Your task to perform on an android device: When is my next meeting? Image 0: 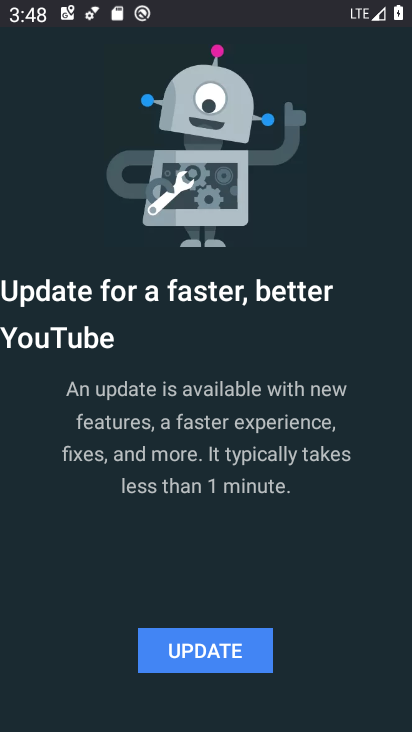
Step 0: press back button
Your task to perform on an android device: When is my next meeting? Image 1: 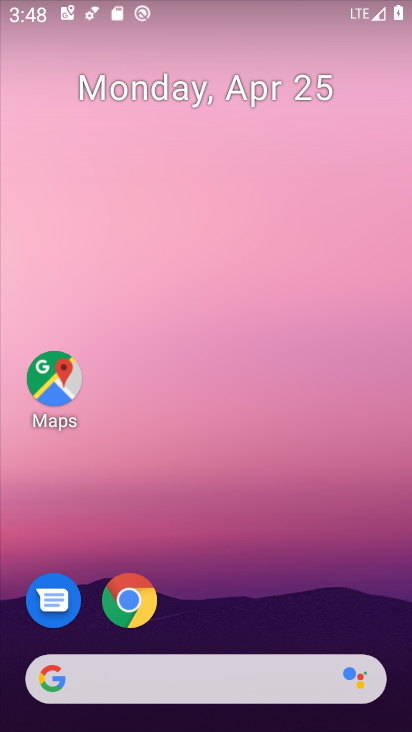
Step 1: drag from (289, 529) to (239, 4)
Your task to perform on an android device: When is my next meeting? Image 2: 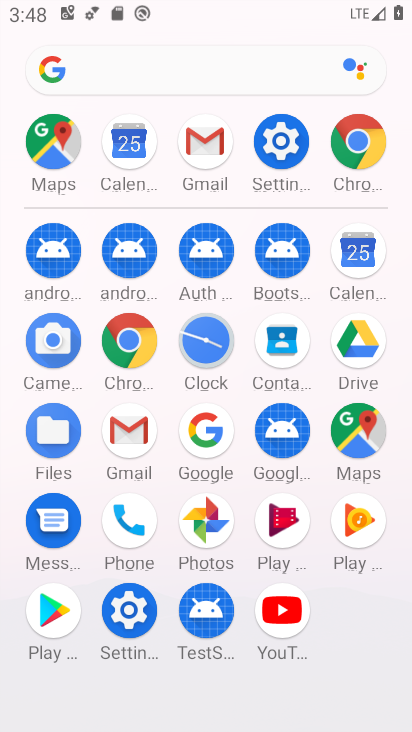
Step 2: drag from (9, 498) to (8, 213)
Your task to perform on an android device: When is my next meeting? Image 3: 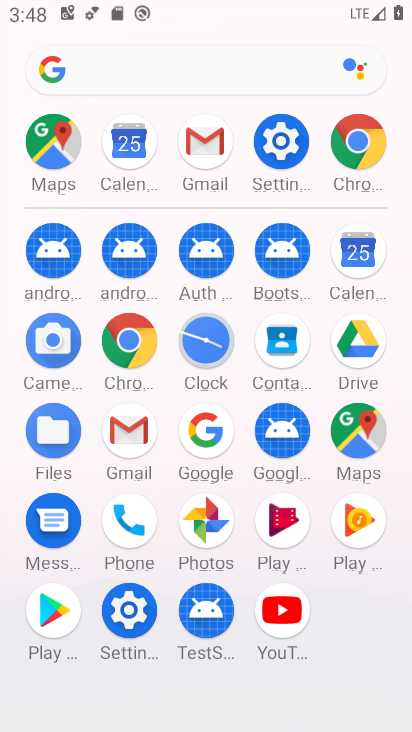
Step 3: click (362, 247)
Your task to perform on an android device: When is my next meeting? Image 4: 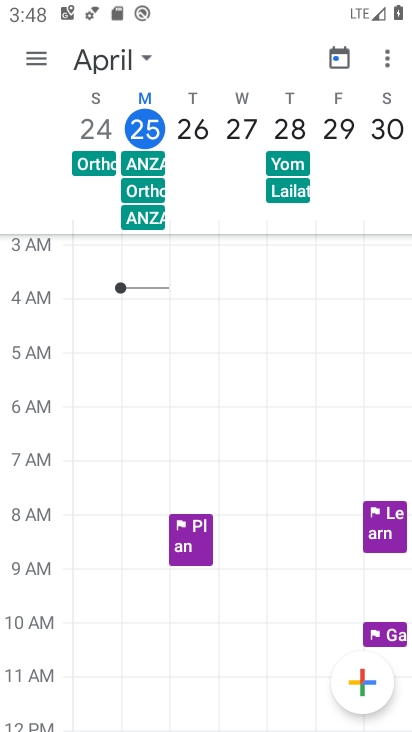
Step 4: click (47, 60)
Your task to perform on an android device: When is my next meeting? Image 5: 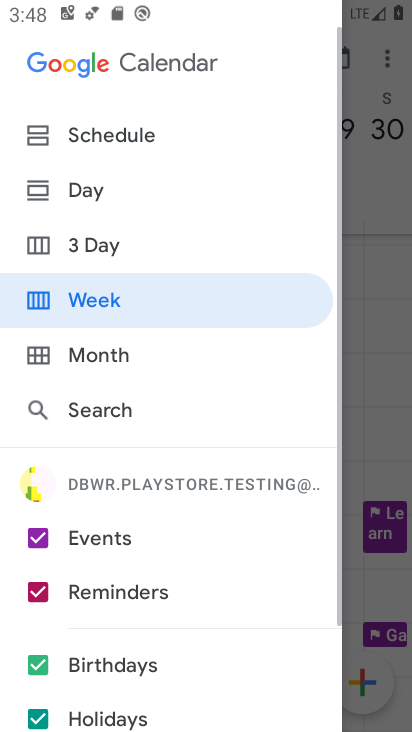
Step 5: drag from (210, 600) to (220, 232)
Your task to perform on an android device: When is my next meeting? Image 6: 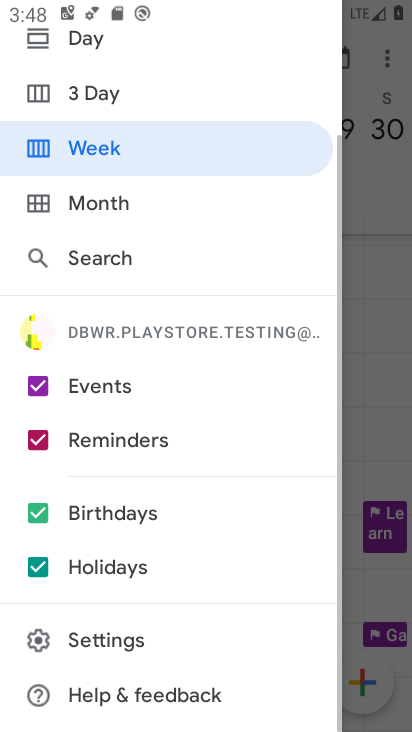
Step 6: click (38, 500)
Your task to perform on an android device: When is my next meeting? Image 7: 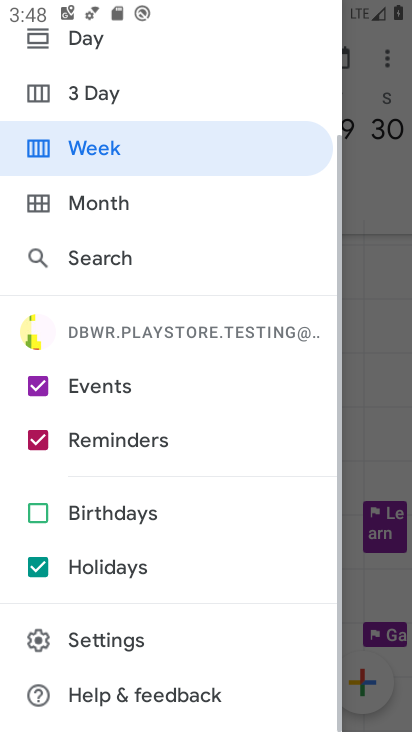
Step 7: click (41, 565)
Your task to perform on an android device: When is my next meeting? Image 8: 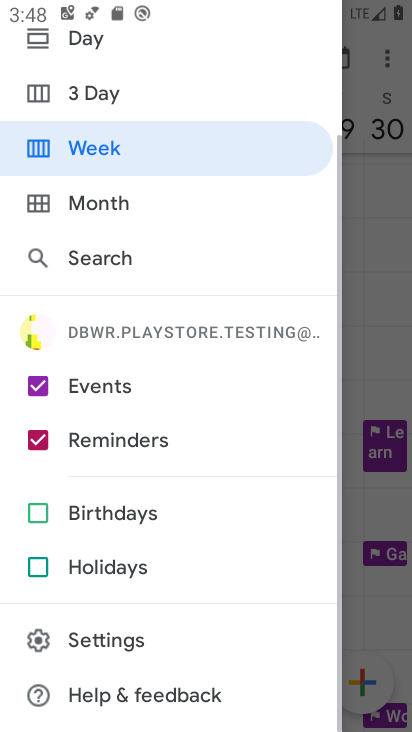
Step 8: click (381, 301)
Your task to perform on an android device: When is my next meeting? Image 9: 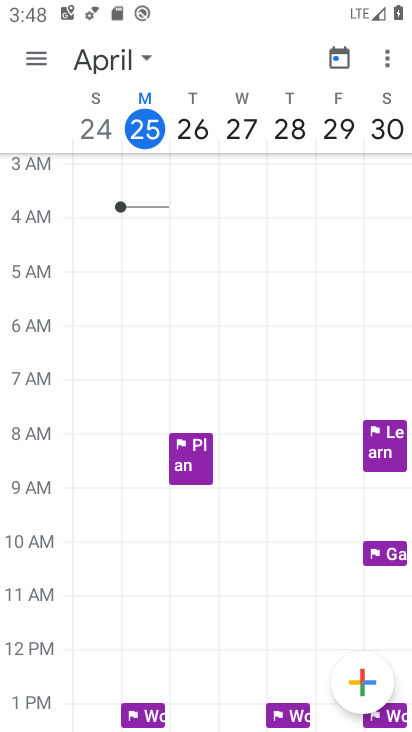
Step 9: click (34, 48)
Your task to perform on an android device: When is my next meeting? Image 10: 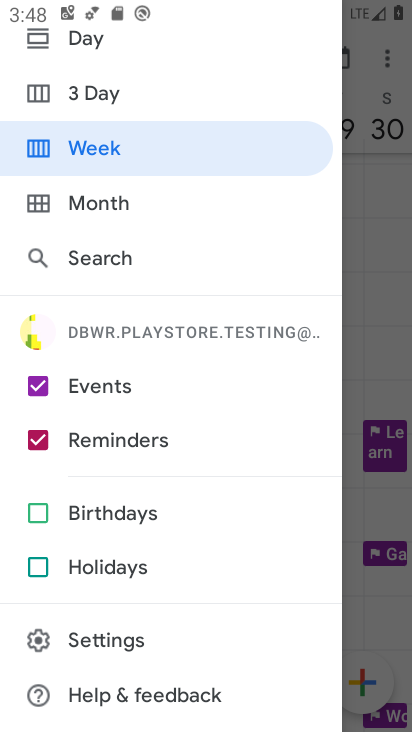
Step 10: drag from (172, 221) to (167, 611)
Your task to perform on an android device: When is my next meeting? Image 11: 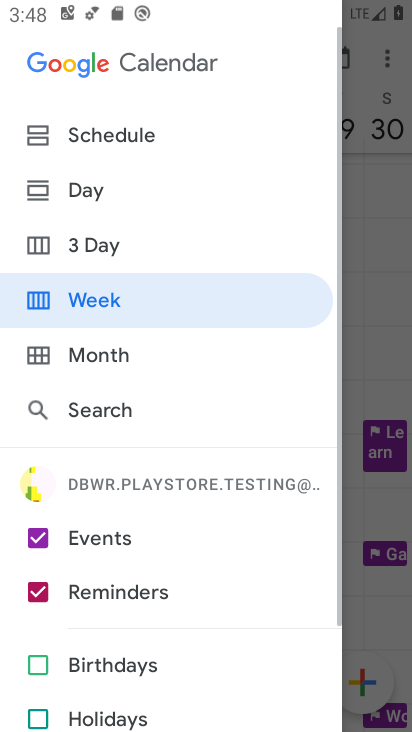
Step 11: click (129, 129)
Your task to perform on an android device: When is my next meeting? Image 12: 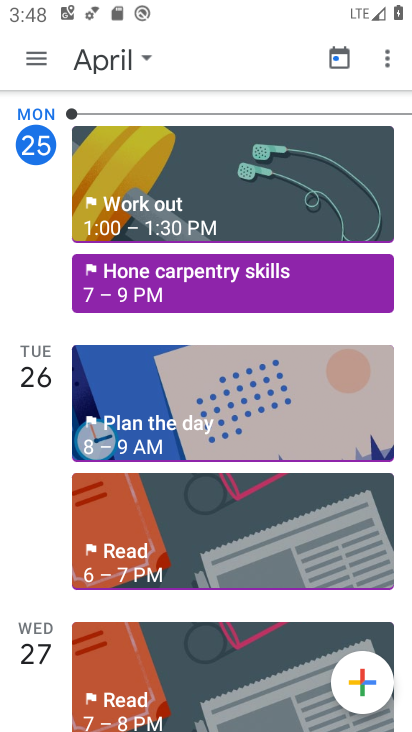
Step 12: drag from (218, 532) to (249, 113)
Your task to perform on an android device: When is my next meeting? Image 13: 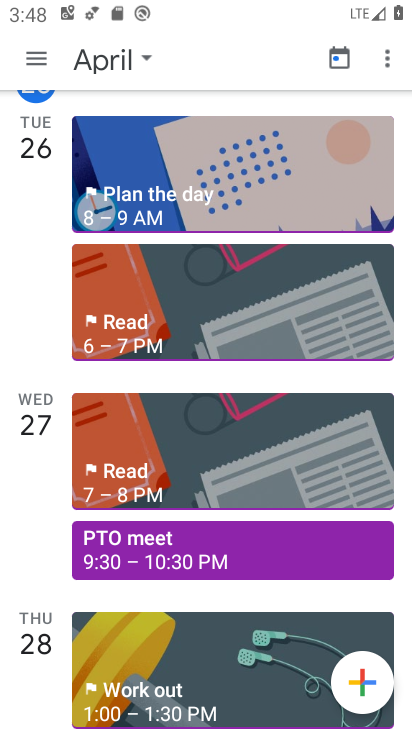
Step 13: drag from (251, 559) to (279, 177)
Your task to perform on an android device: When is my next meeting? Image 14: 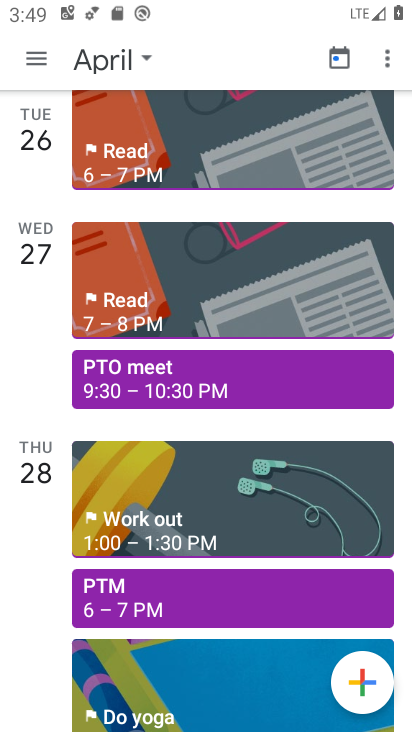
Step 14: drag from (279, 491) to (323, 123)
Your task to perform on an android device: When is my next meeting? Image 15: 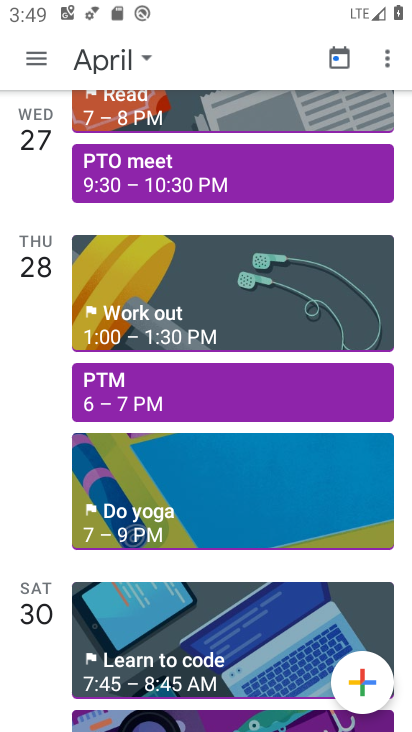
Step 15: click (20, 55)
Your task to perform on an android device: When is my next meeting? Image 16: 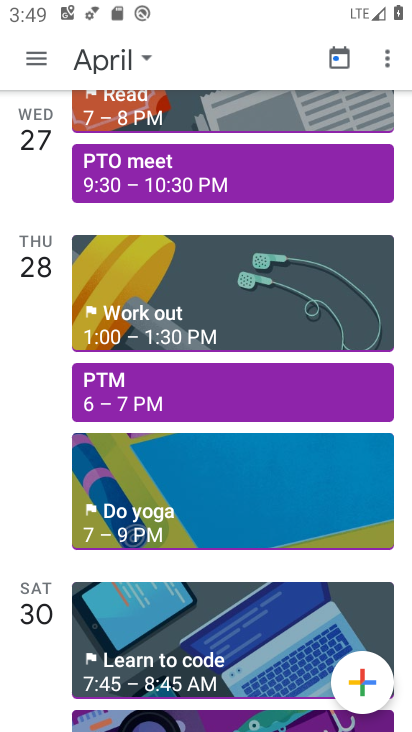
Step 16: click (33, 58)
Your task to perform on an android device: When is my next meeting? Image 17: 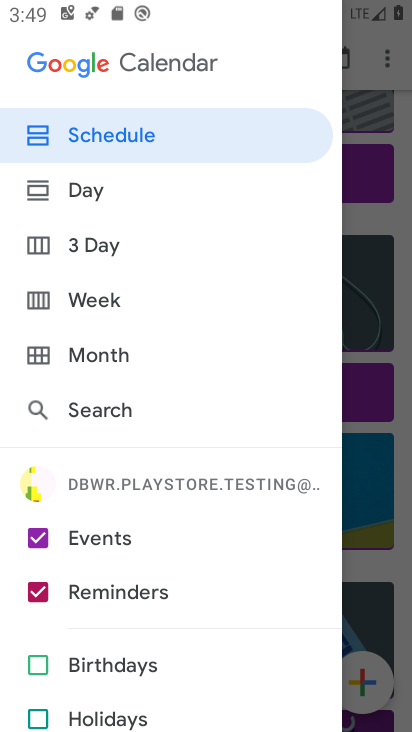
Step 17: click (150, 142)
Your task to perform on an android device: When is my next meeting? Image 18: 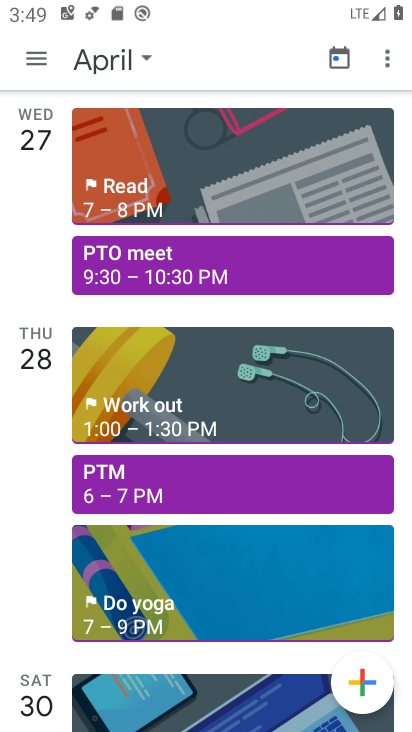
Step 18: task complete